Your task to perform on an android device: check google app version Image 0: 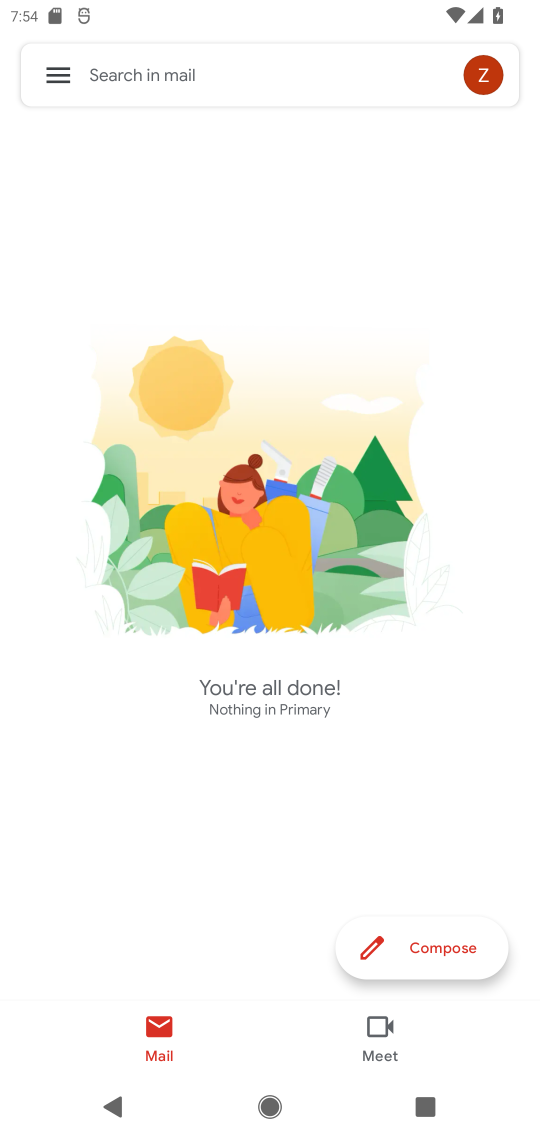
Step 0: press home button
Your task to perform on an android device: check google app version Image 1: 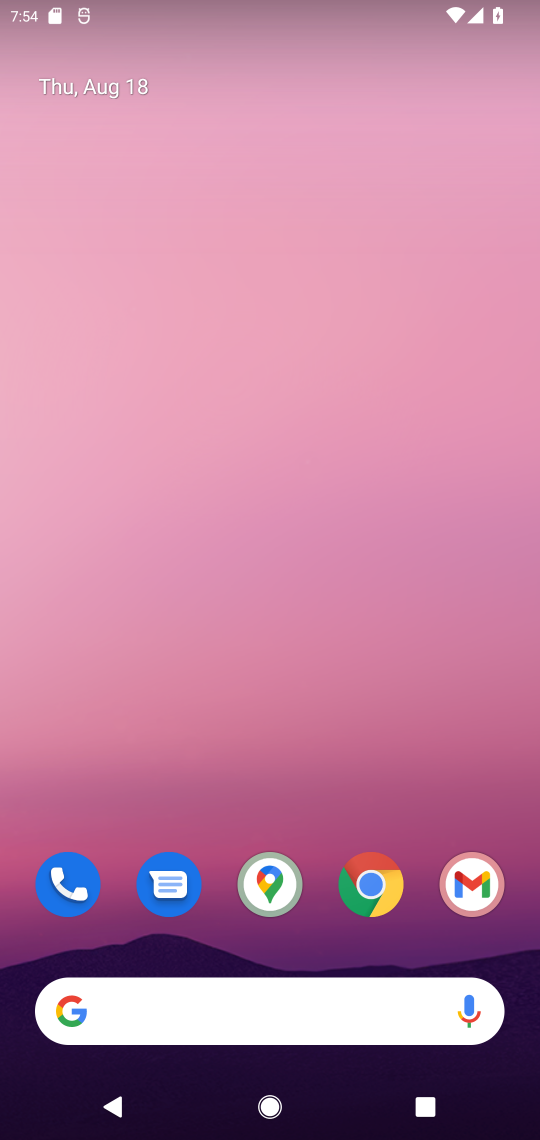
Step 1: click (157, 994)
Your task to perform on an android device: check google app version Image 2: 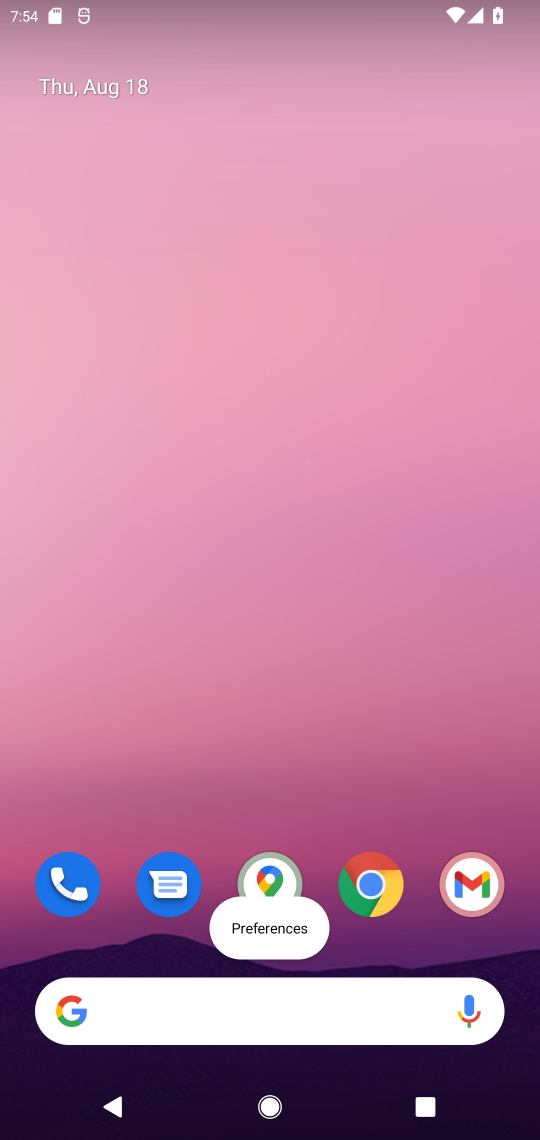
Step 2: click (78, 1011)
Your task to perform on an android device: check google app version Image 3: 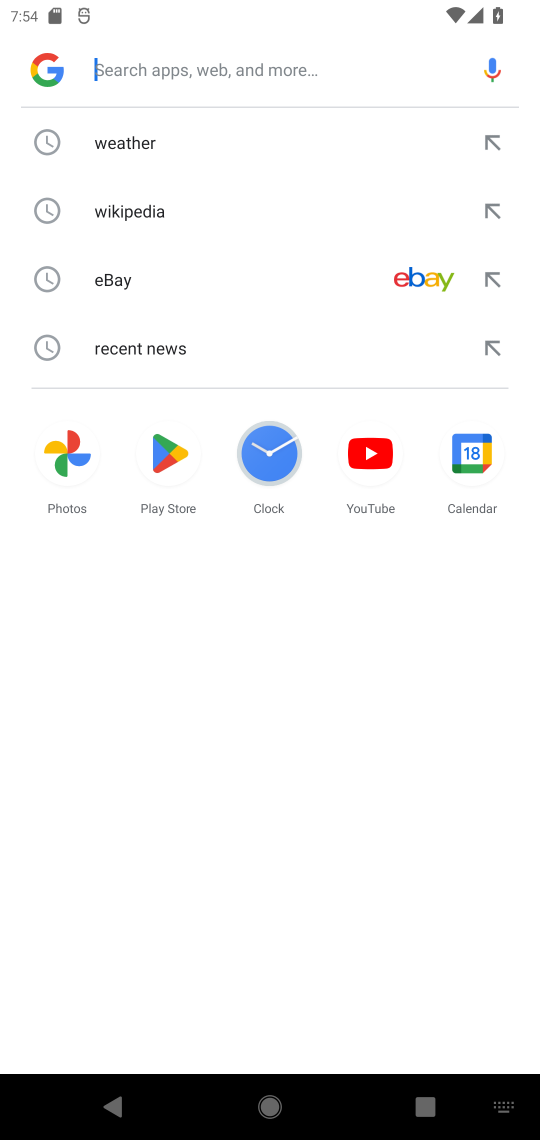
Step 3: click (54, 80)
Your task to perform on an android device: check google app version Image 4: 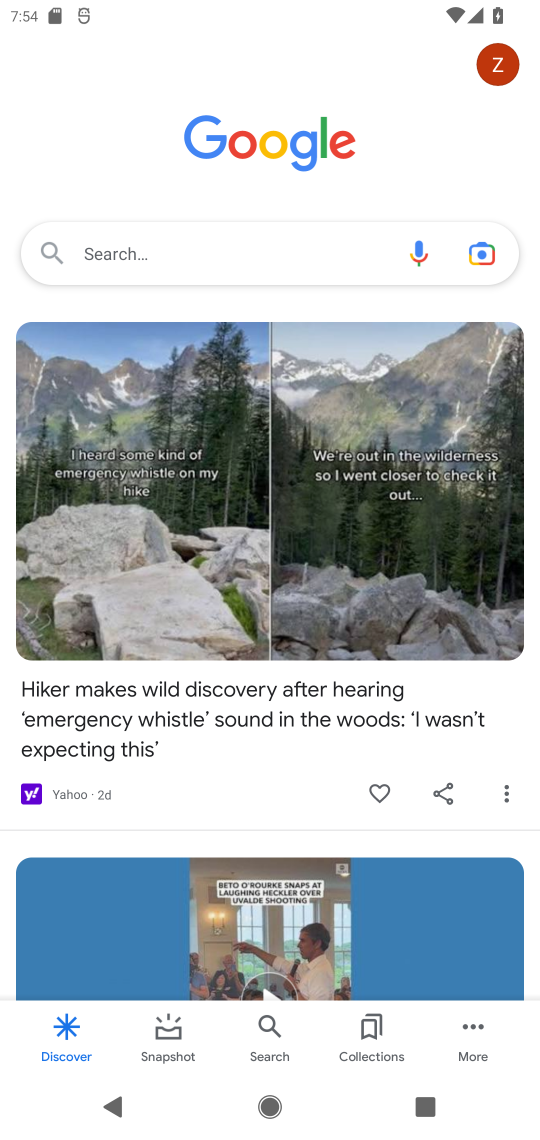
Step 4: click (503, 66)
Your task to perform on an android device: check google app version Image 5: 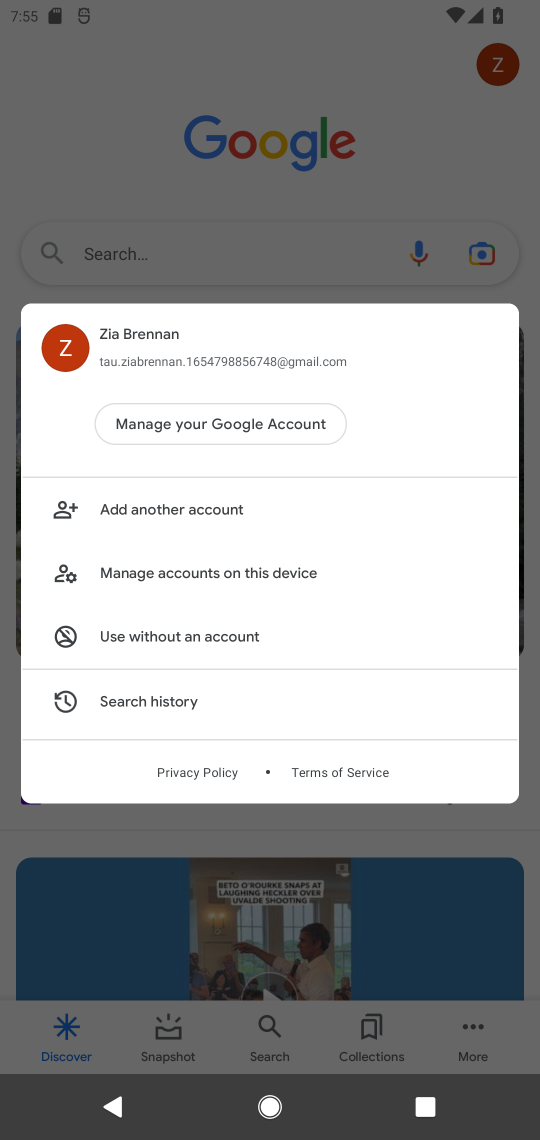
Step 5: click (50, 353)
Your task to perform on an android device: check google app version Image 6: 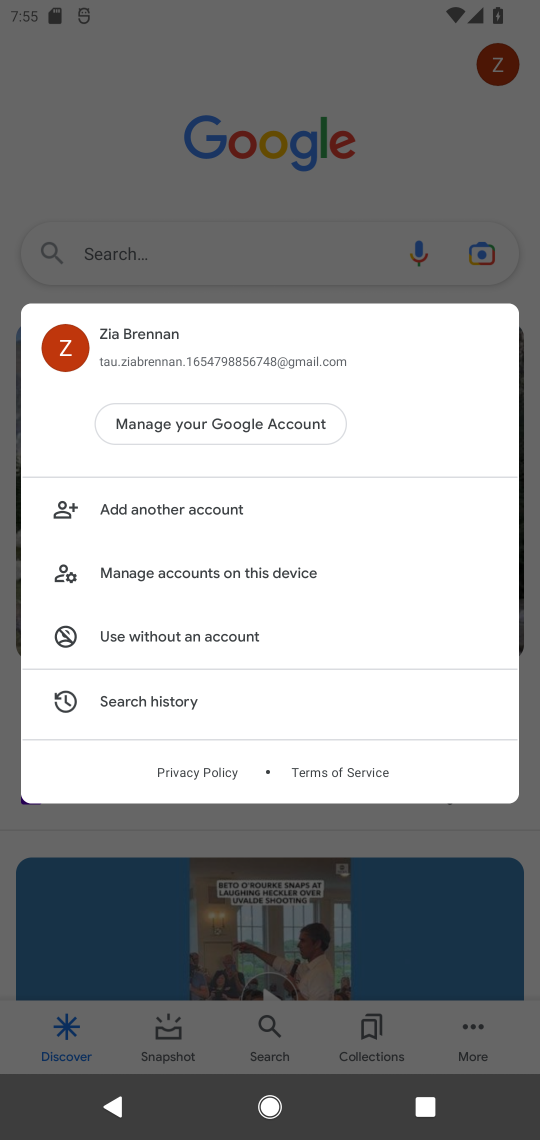
Step 6: click (50, 353)
Your task to perform on an android device: check google app version Image 7: 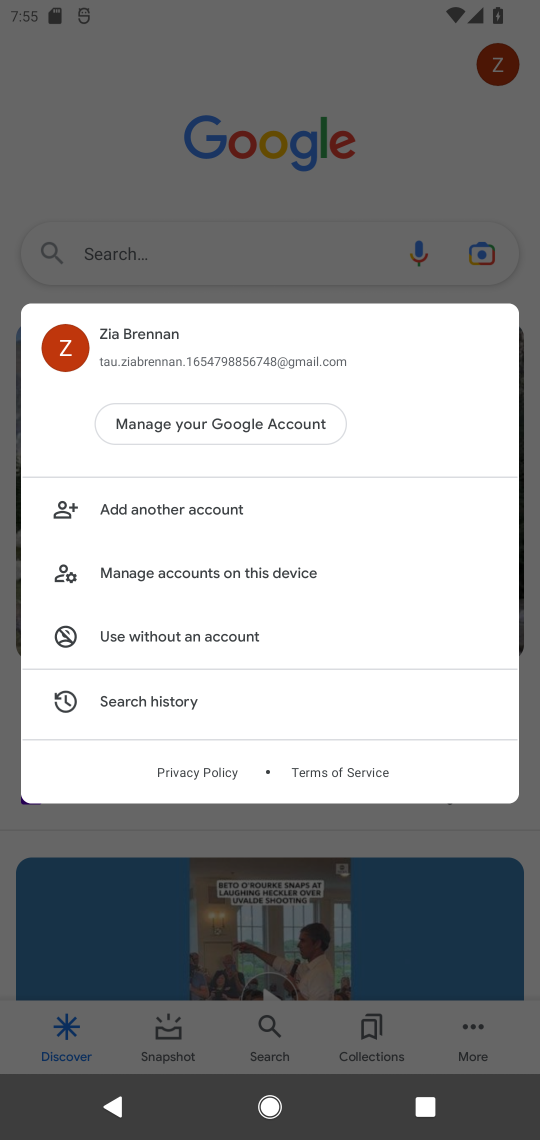
Step 7: click (50, 353)
Your task to perform on an android device: check google app version Image 8: 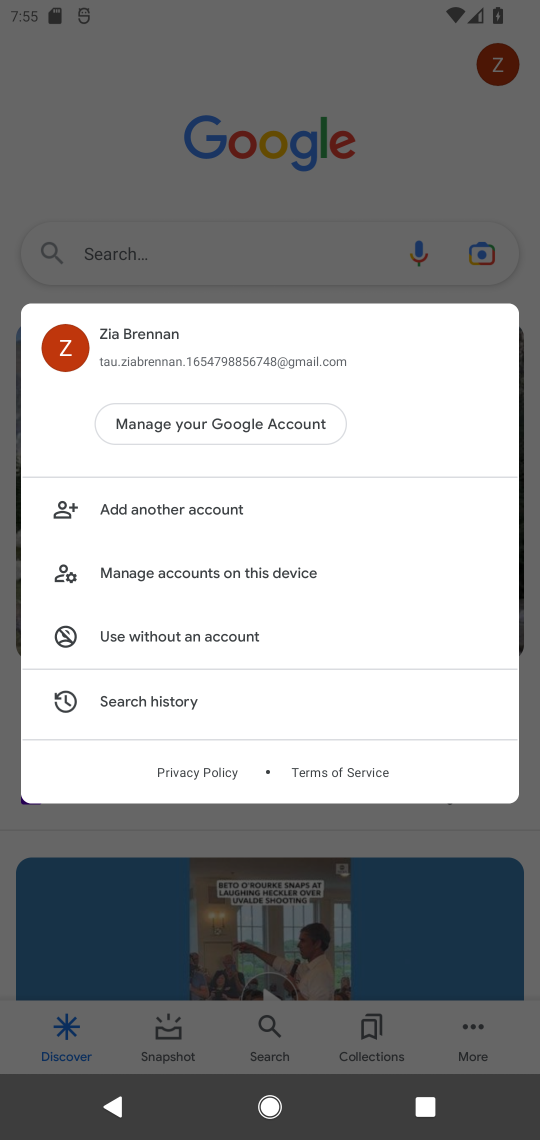
Step 8: click (54, 348)
Your task to perform on an android device: check google app version Image 9: 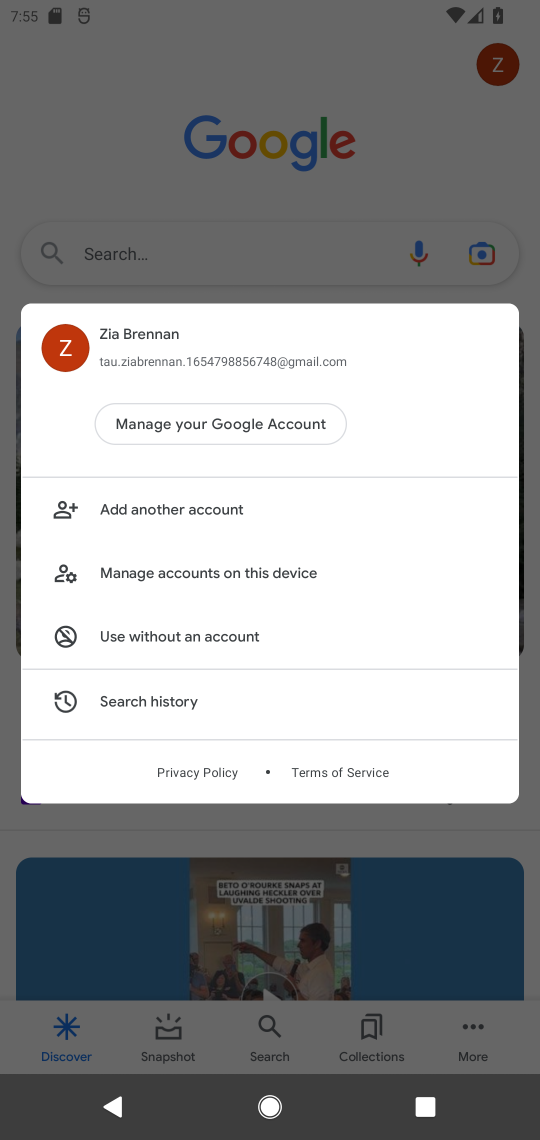
Step 9: click (54, 348)
Your task to perform on an android device: check google app version Image 10: 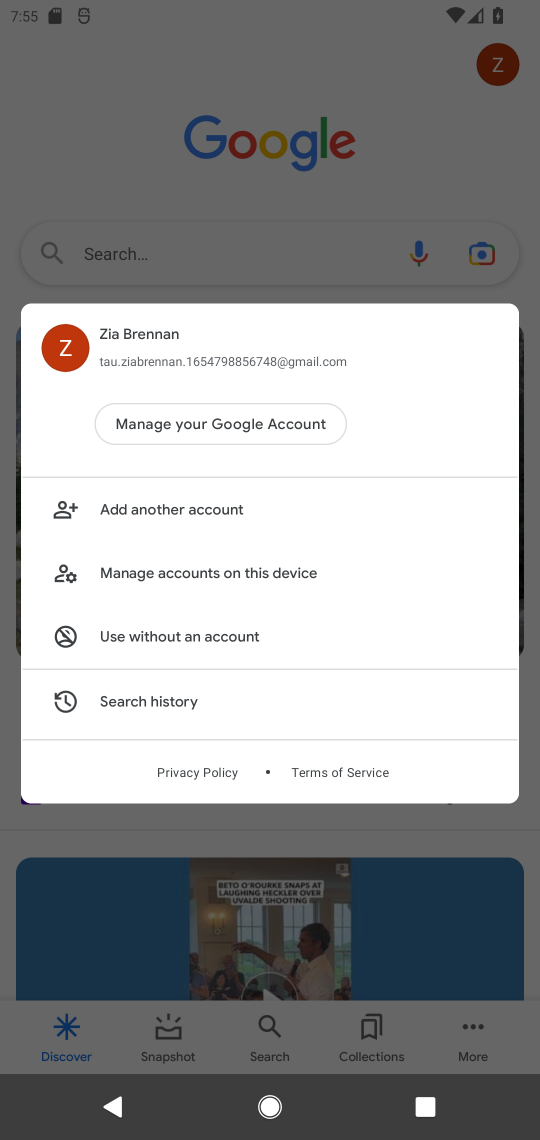
Step 10: click (96, 333)
Your task to perform on an android device: check google app version Image 11: 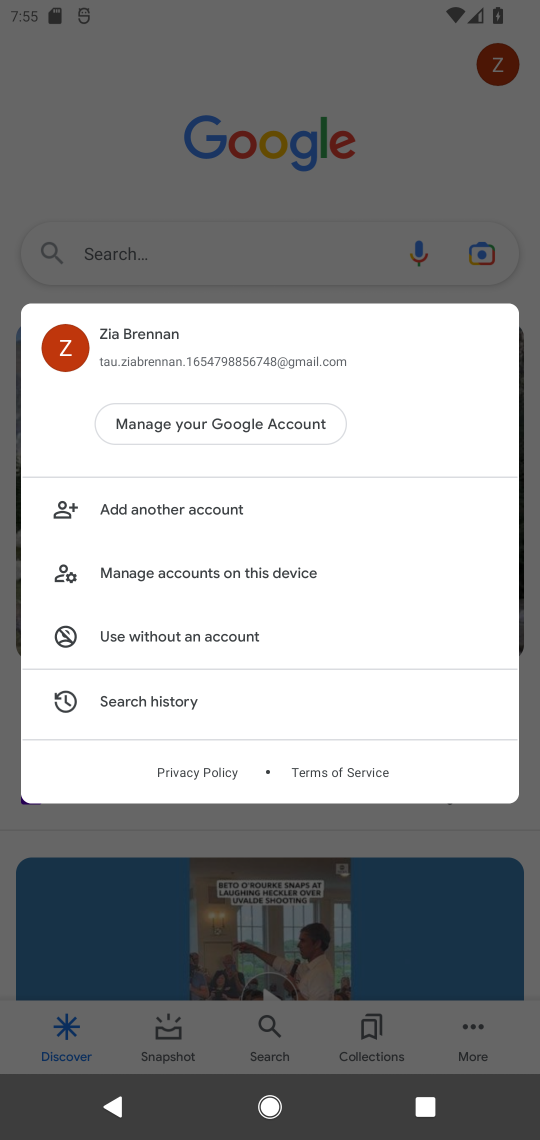
Step 11: click (61, 361)
Your task to perform on an android device: check google app version Image 12: 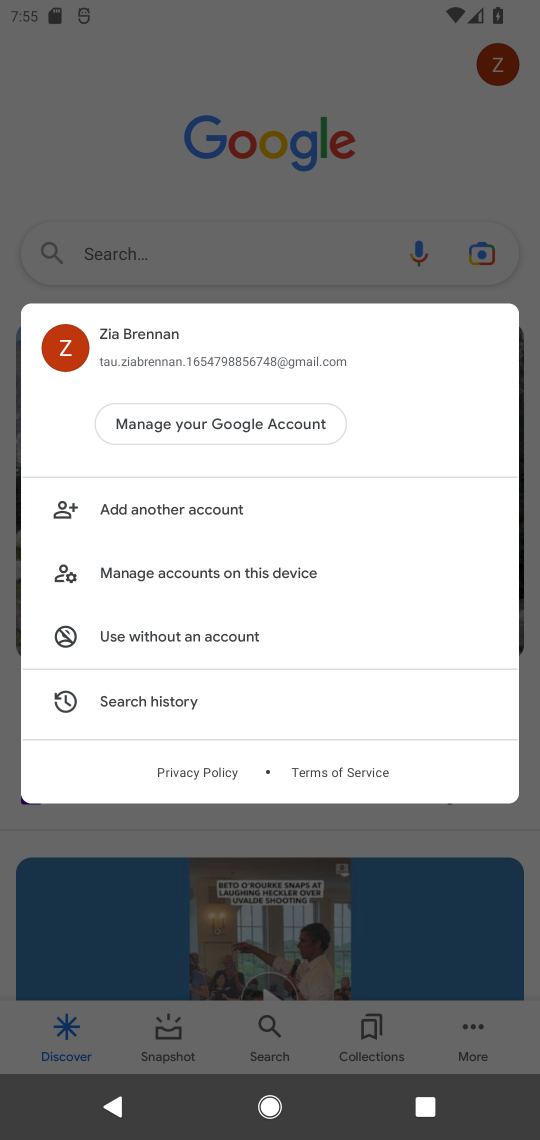
Step 12: click (61, 361)
Your task to perform on an android device: check google app version Image 13: 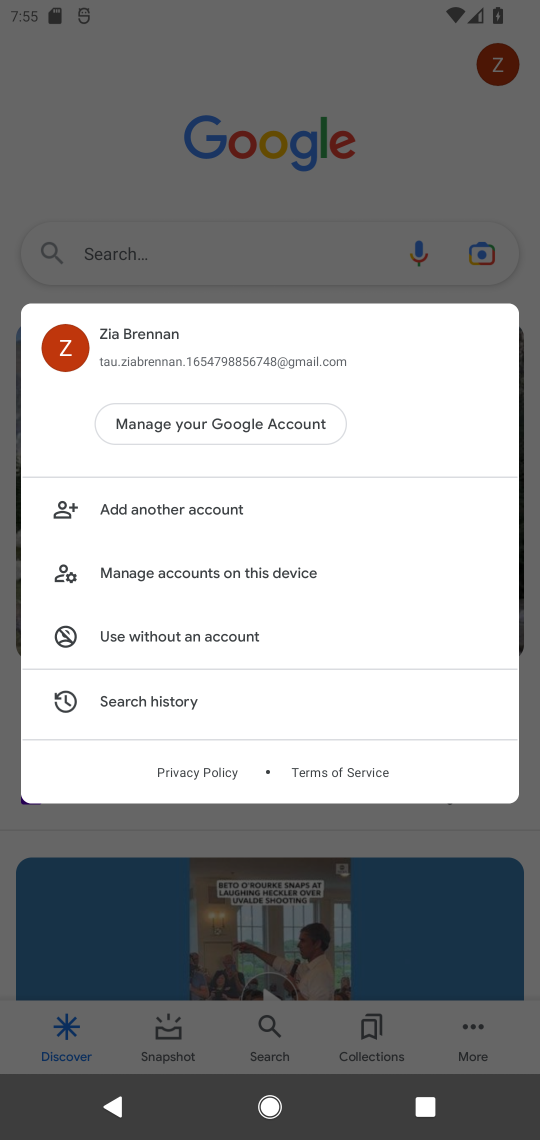
Step 13: click (61, 361)
Your task to perform on an android device: check google app version Image 14: 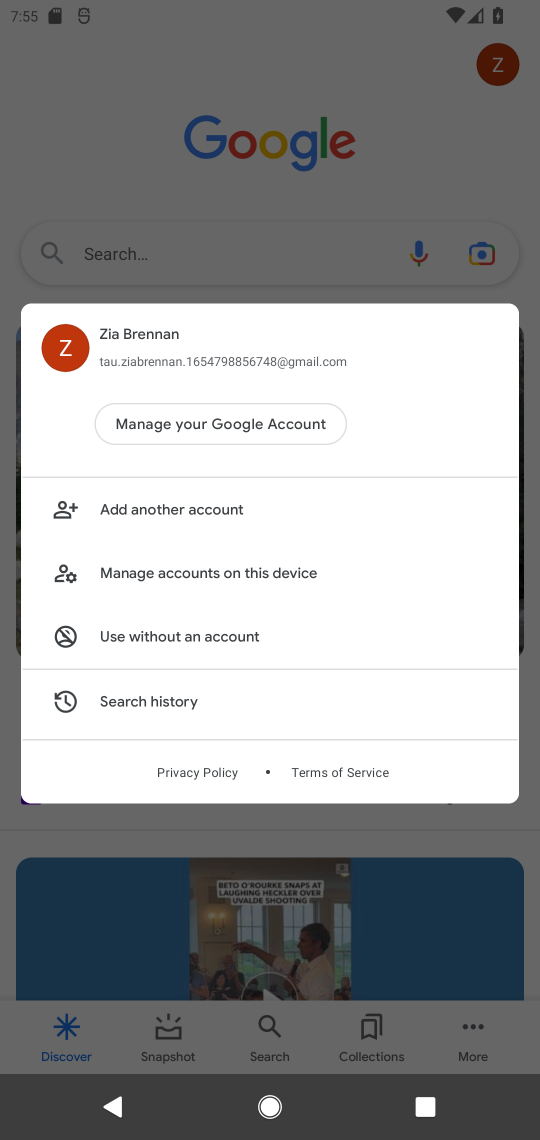
Step 14: click (203, 154)
Your task to perform on an android device: check google app version Image 15: 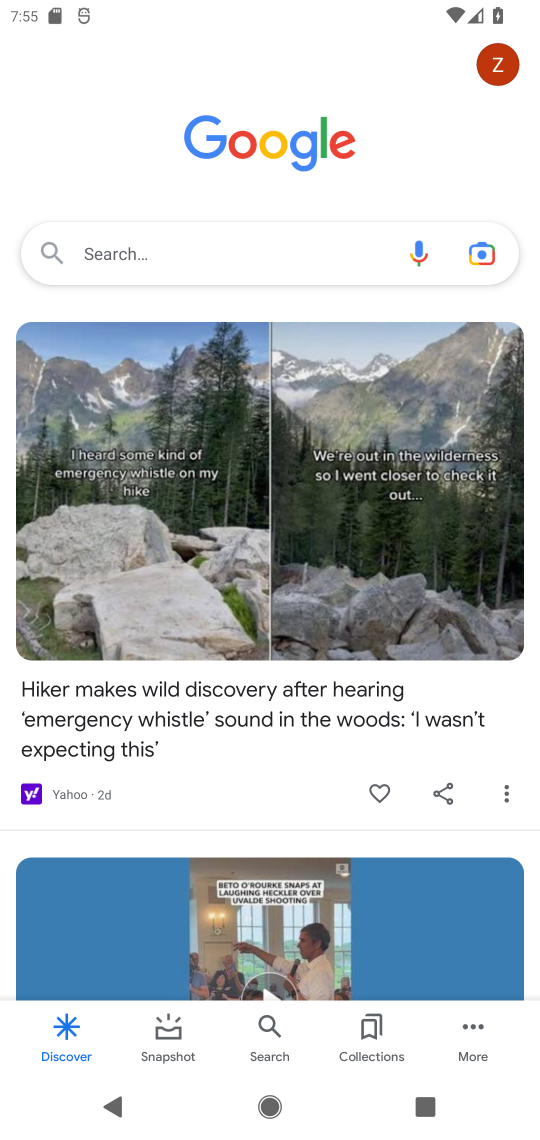
Step 15: click (488, 1030)
Your task to perform on an android device: check google app version Image 16: 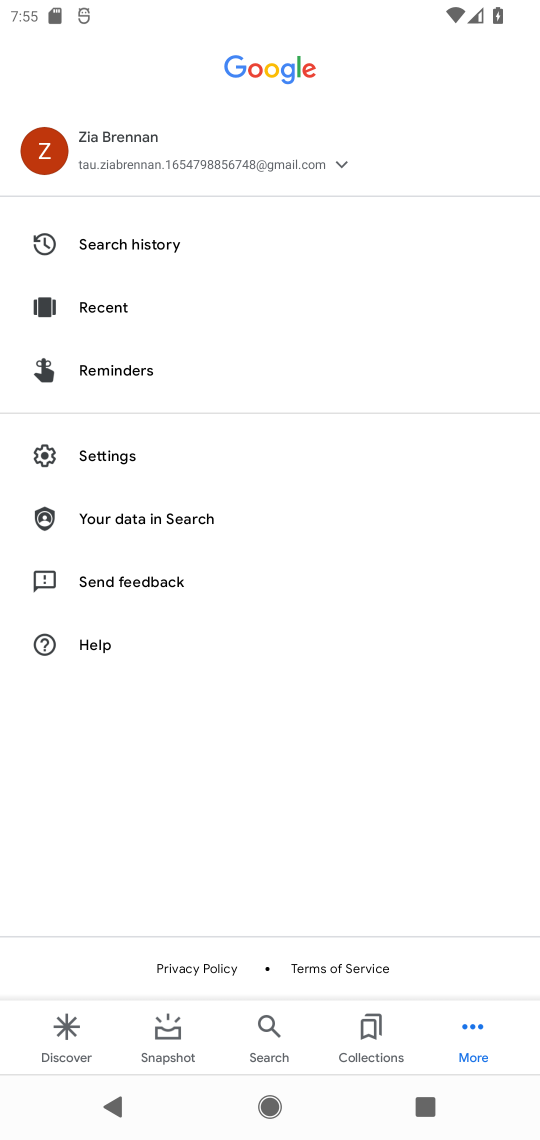
Step 16: click (122, 443)
Your task to perform on an android device: check google app version Image 17: 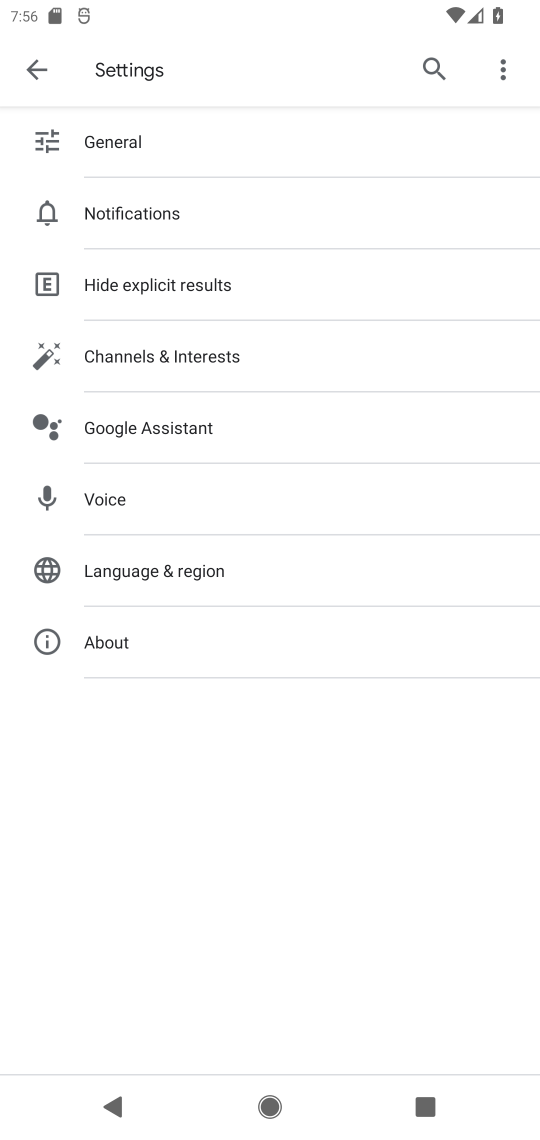
Step 17: click (164, 656)
Your task to perform on an android device: check google app version Image 18: 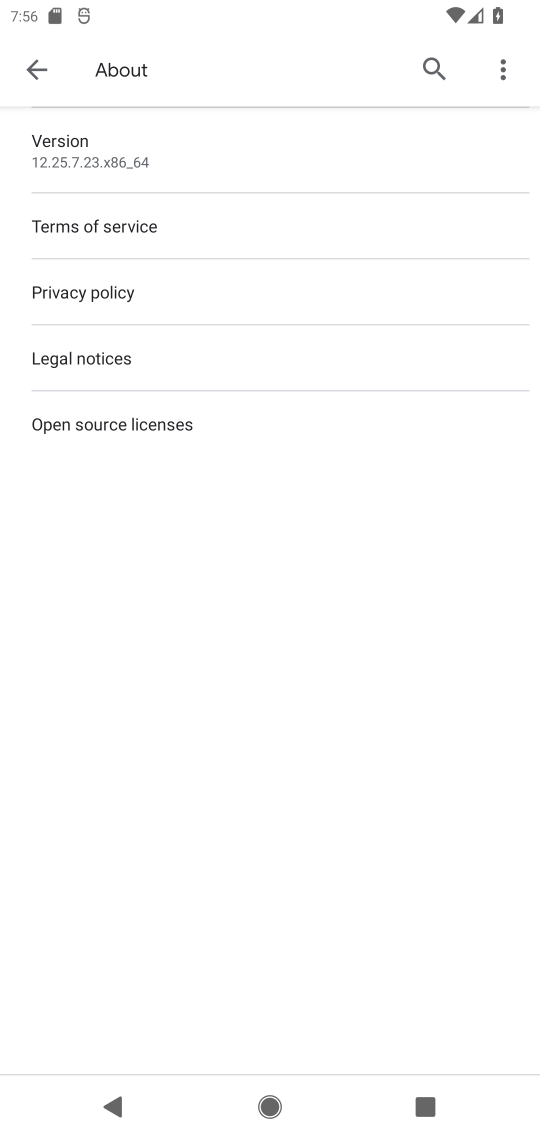
Step 18: task complete